Your task to perform on an android device: Go to display settings Image 0: 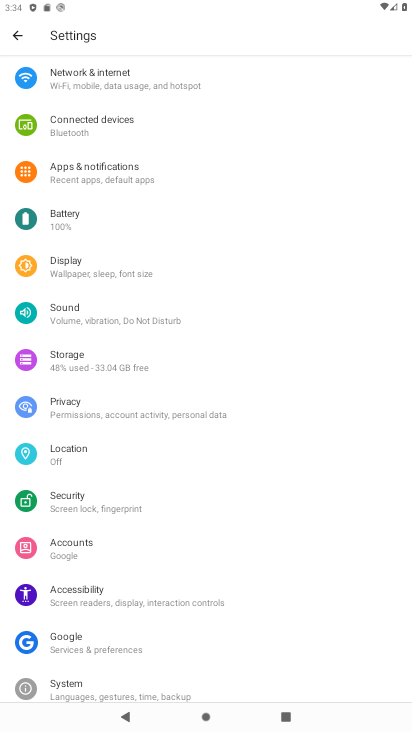
Step 0: click (143, 272)
Your task to perform on an android device: Go to display settings Image 1: 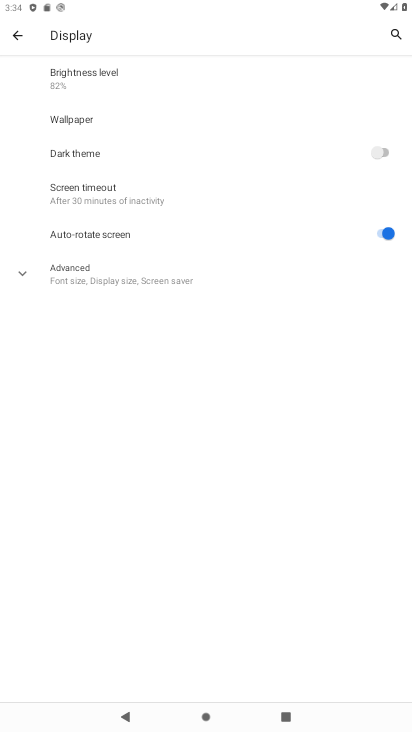
Step 1: task complete